Your task to perform on an android device: change keyboard looks Image 0: 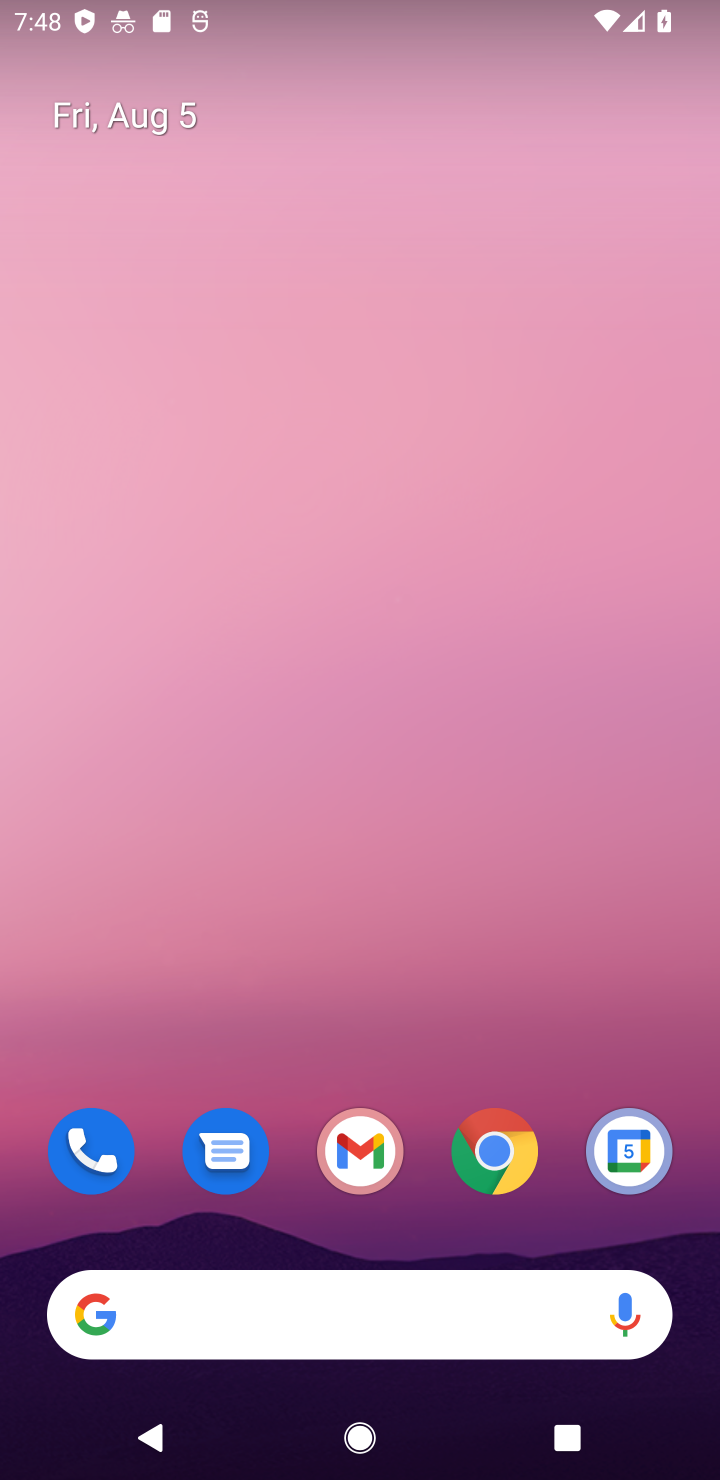
Step 0: drag from (402, 1244) to (365, 240)
Your task to perform on an android device: change keyboard looks Image 1: 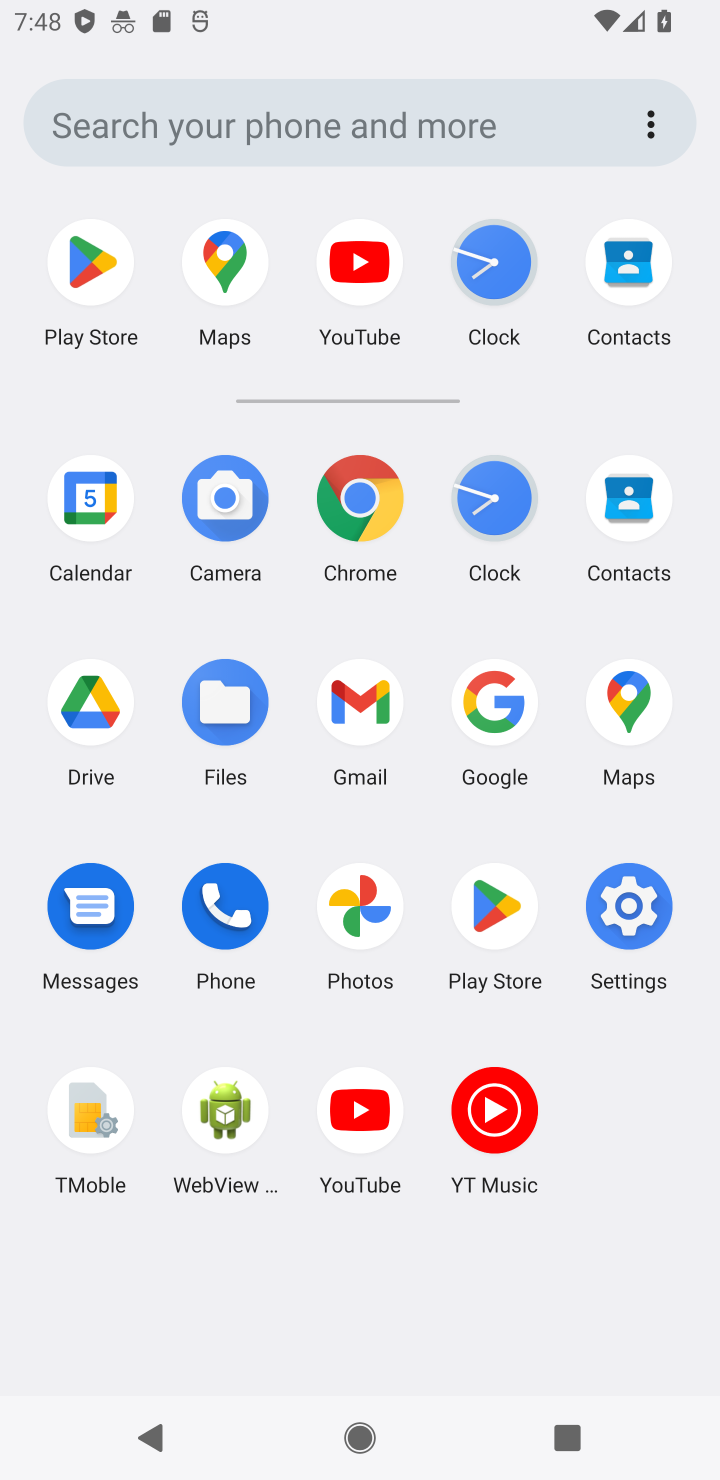
Step 1: click (598, 922)
Your task to perform on an android device: change keyboard looks Image 2: 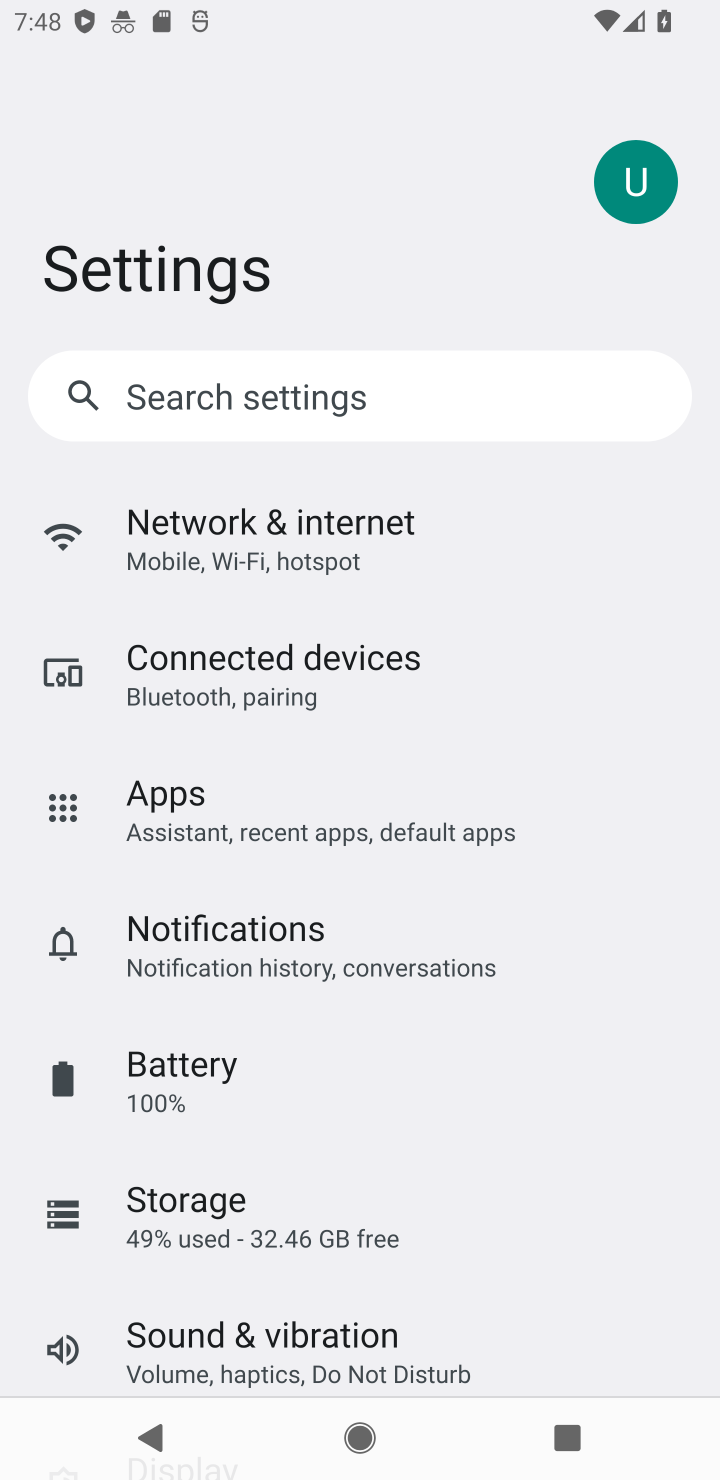
Step 2: drag from (158, 1219) to (156, 289)
Your task to perform on an android device: change keyboard looks Image 3: 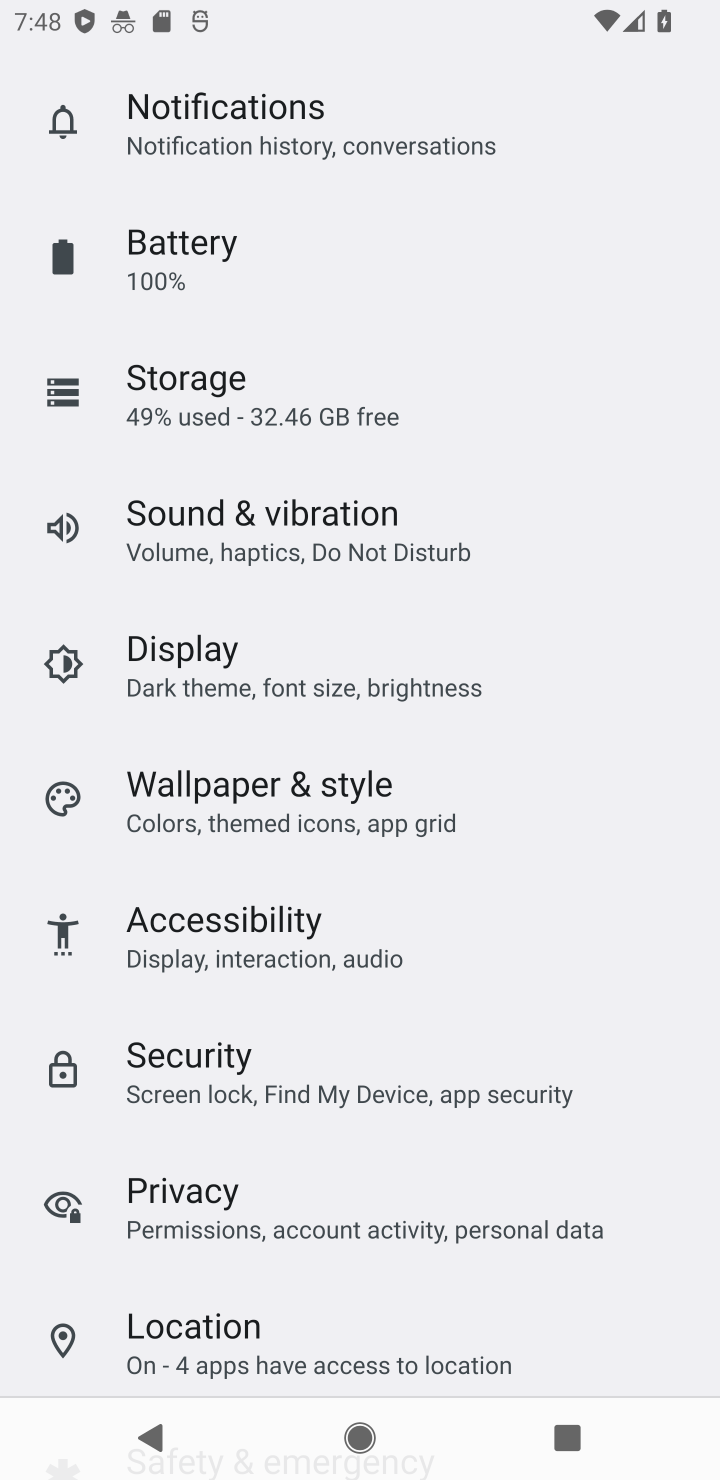
Step 3: drag from (505, 1142) to (457, 342)
Your task to perform on an android device: change keyboard looks Image 4: 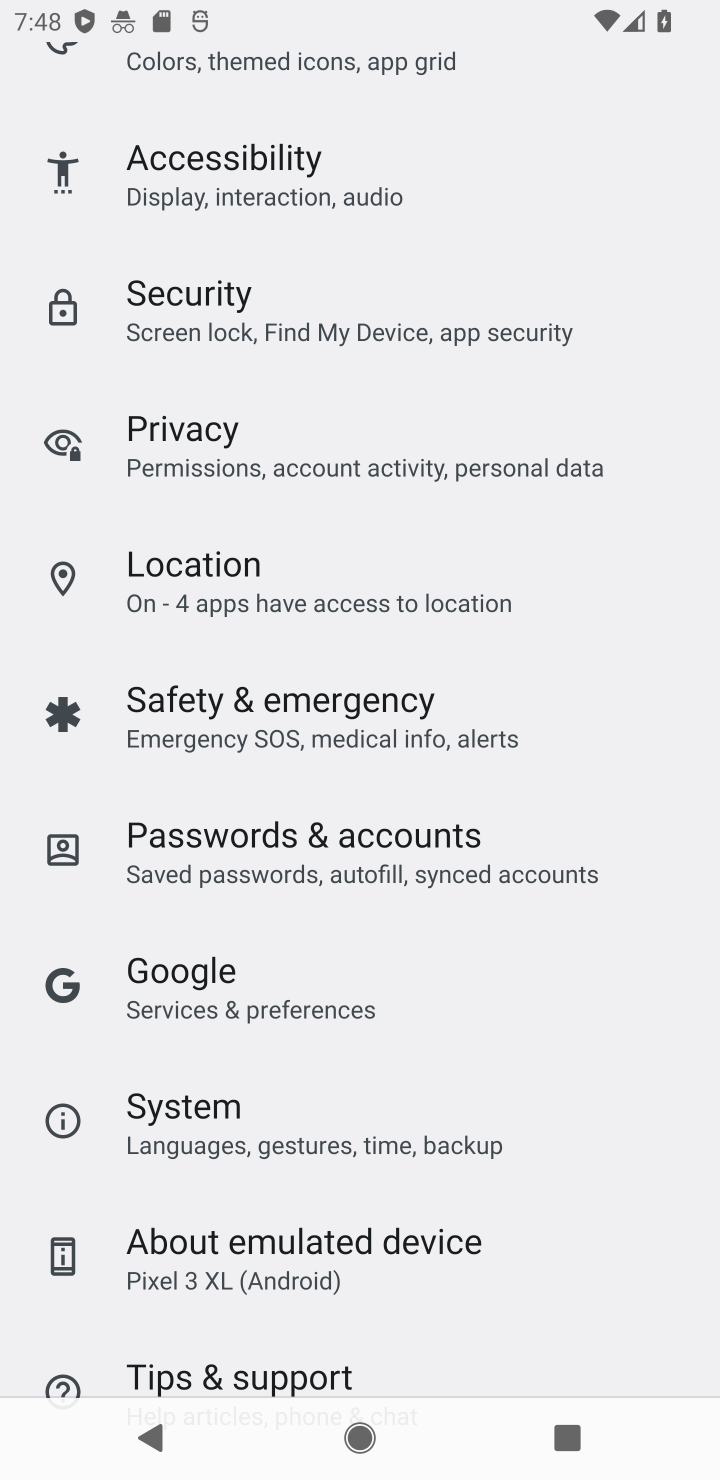
Step 4: click (249, 1119)
Your task to perform on an android device: change keyboard looks Image 5: 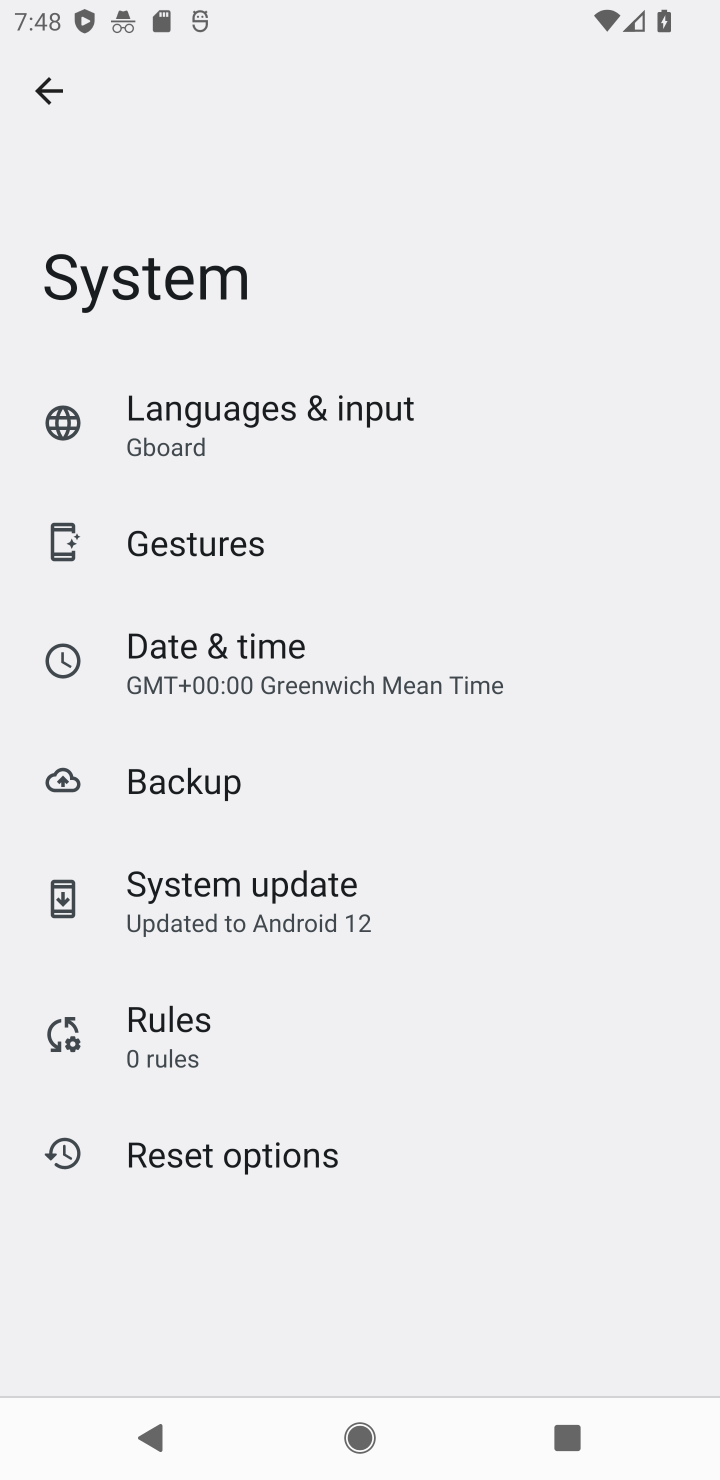
Step 5: click (227, 462)
Your task to perform on an android device: change keyboard looks Image 6: 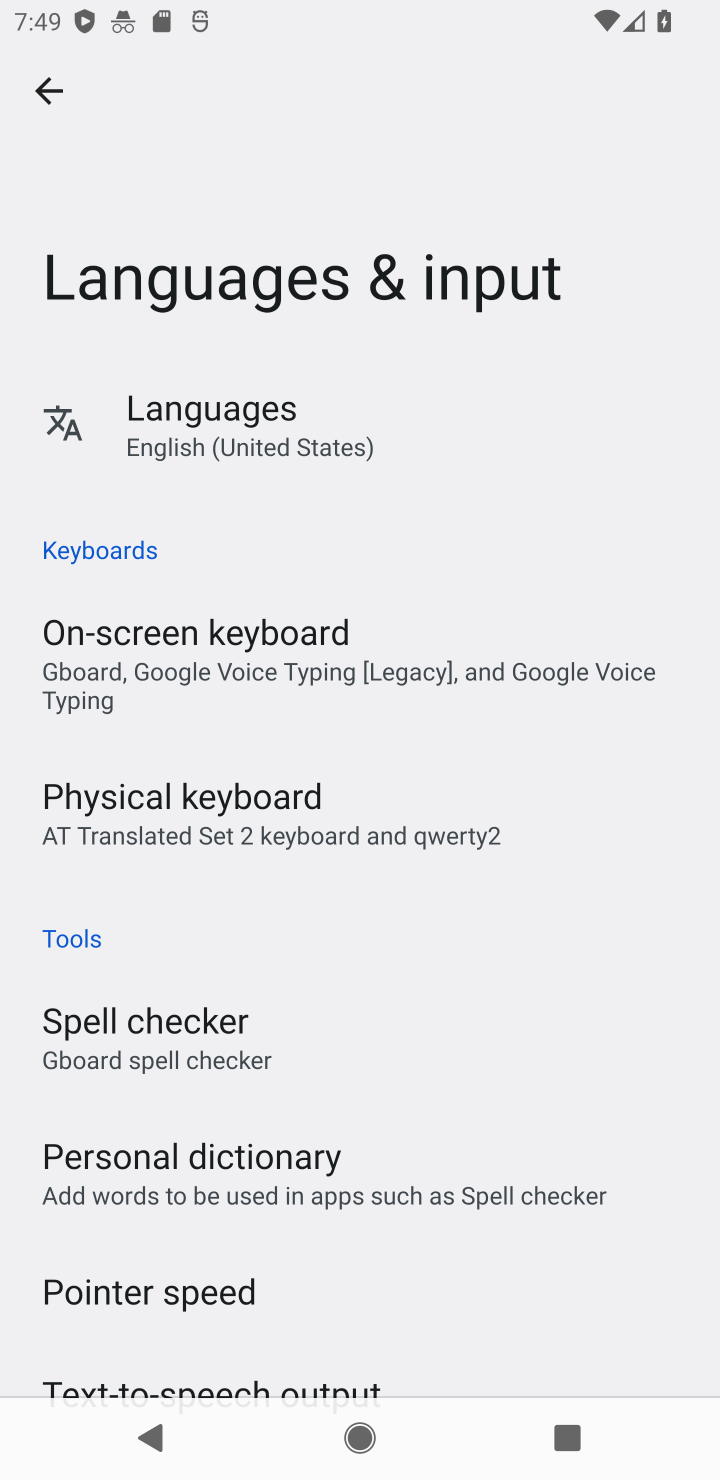
Step 6: click (192, 438)
Your task to perform on an android device: change keyboard looks Image 7: 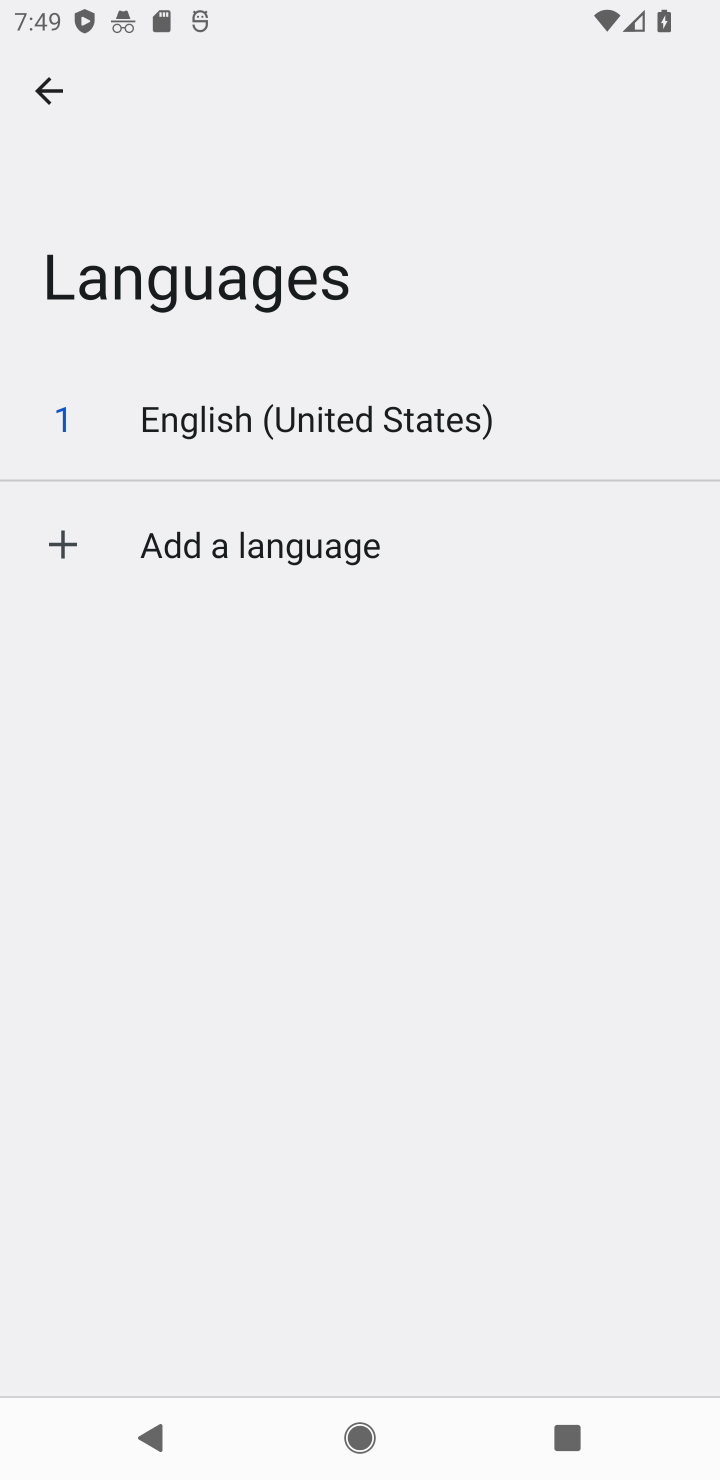
Step 7: task complete